Your task to perform on an android device: When is my next appointment? Image 0: 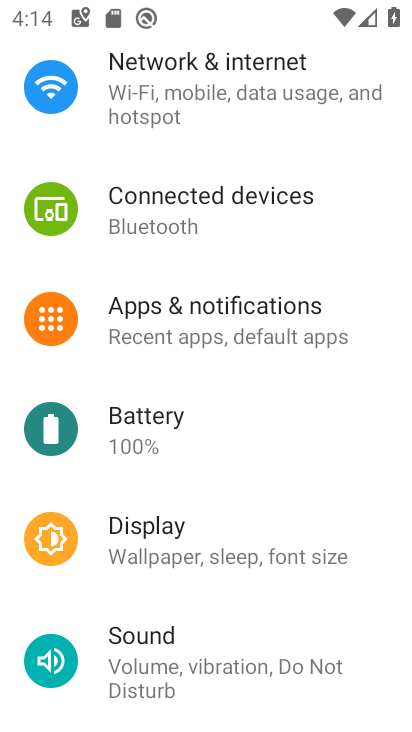
Step 0: press home button
Your task to perform on an android device: When is my next appointment? Image 1: 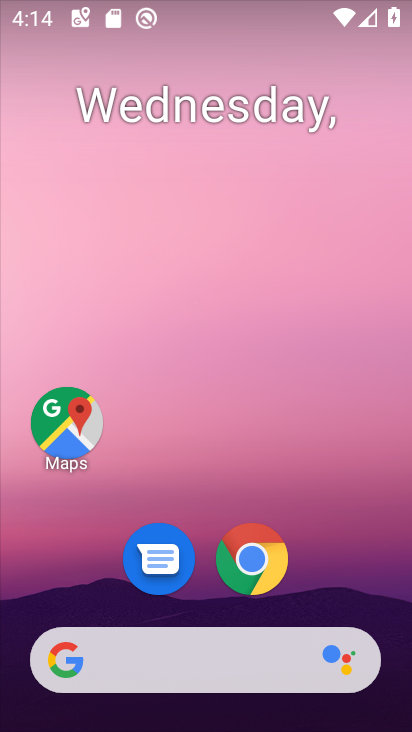
Step 1: drag from (307, 433) to (251, 42)
Your task to perform on an android device: When is my next appointment? Image 2: 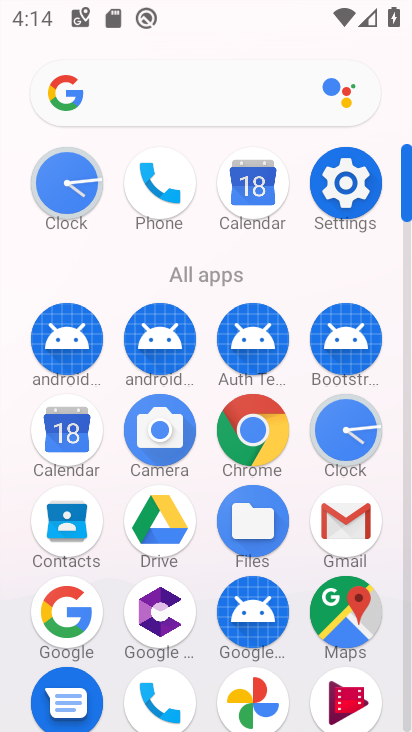
Step 2: click (45, 436)
Your task to perform on an android device: When is my next appointment? Image 3: 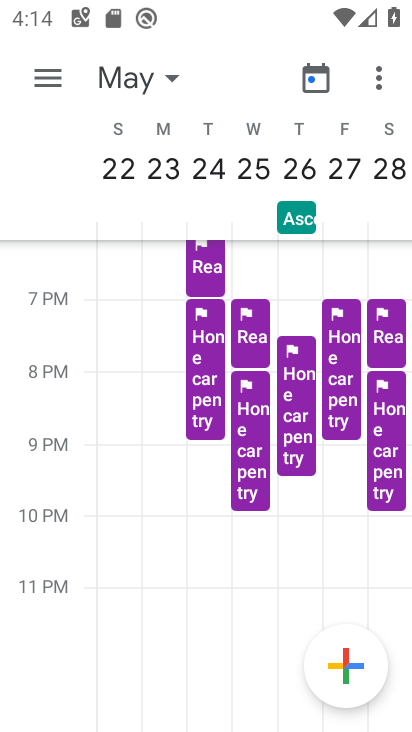
Step 3: click (162, 78)
Your task to perform on an android device: When is my next appointment? Image 4: 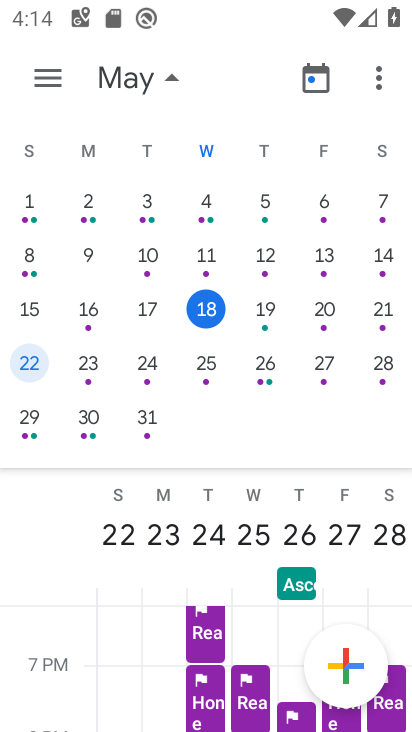
Step 4: click (35, 309)
Your task to perform on an android device: When is my next appointment? Image 5: 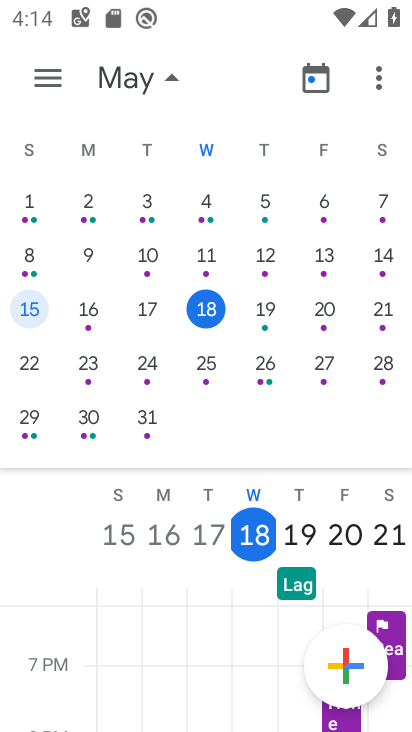
Step 5: task complete